Your task to perform on an android device: What is the news today? Image 0: 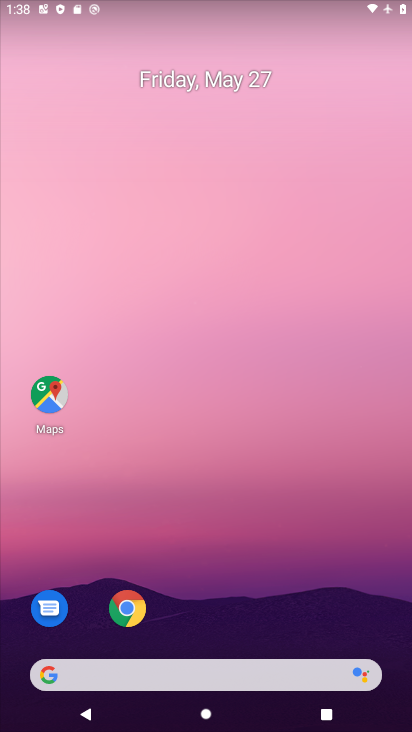
Step 0: press home button
Your task to perform on an android device: What is the news today? Image 1: 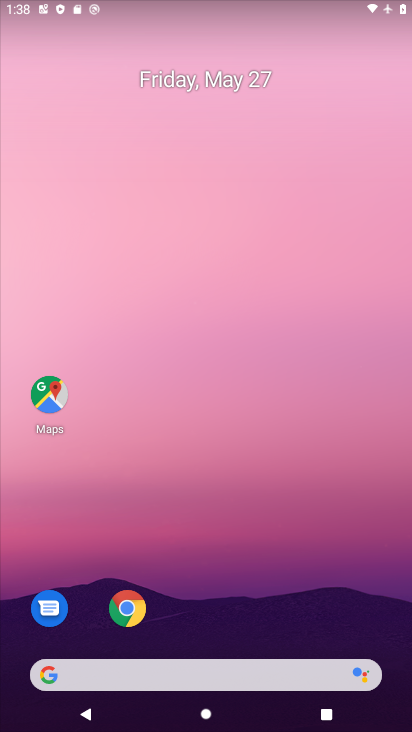
Step 1: click (51, 676)
Your task to perform on an android device: What is the news today? Image 2: 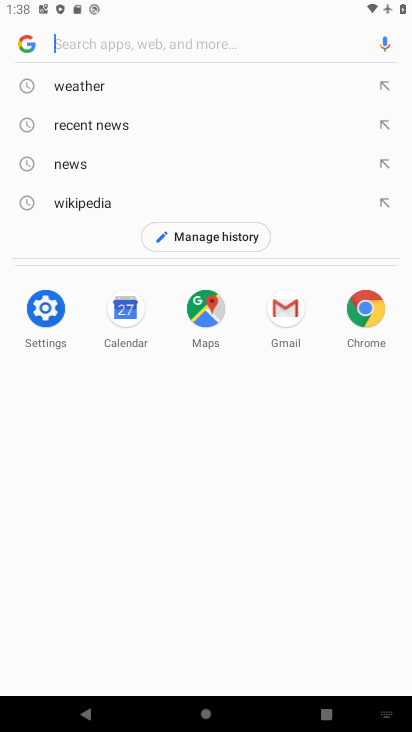
Step 2: click (85, 162)
Your task to perform on an android device: What is the news today? Image 3: 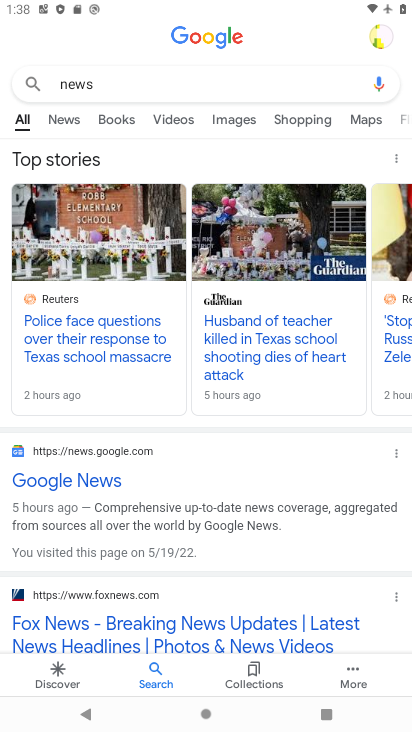
Step 3: click (69, 119)
Your task to perform on an android device: What is the news today? Image 4: 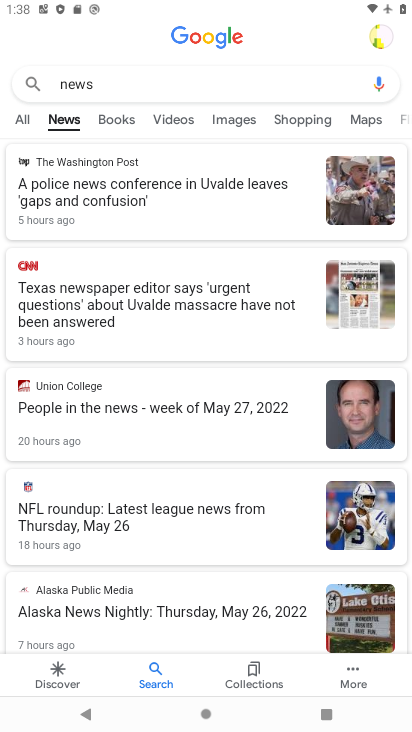
Step 4: task complete